Your task to perform on an android device: Open Google Maps Image 0: 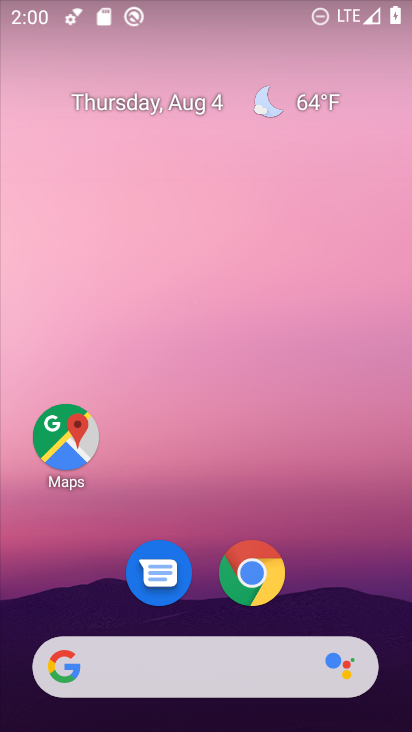
Step 0: drag from (319, 516) to (144, 7)
Your task to perform on an android device: Open Google Maps Image 1: 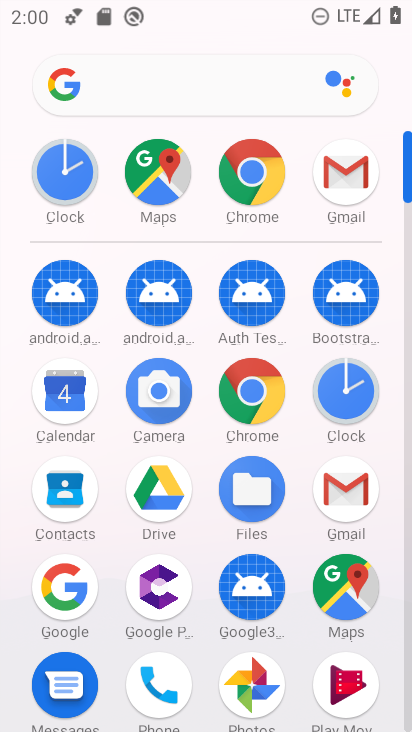
Step 1: click (354, 581)
Your task to perform on an android device: Open Google Maps Image 2: 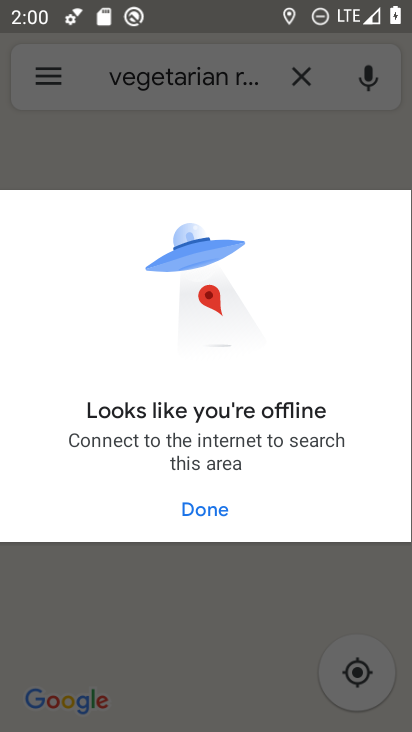
Step 2: task complete